Your task to perform on an android device: open wifi settings Image 0: 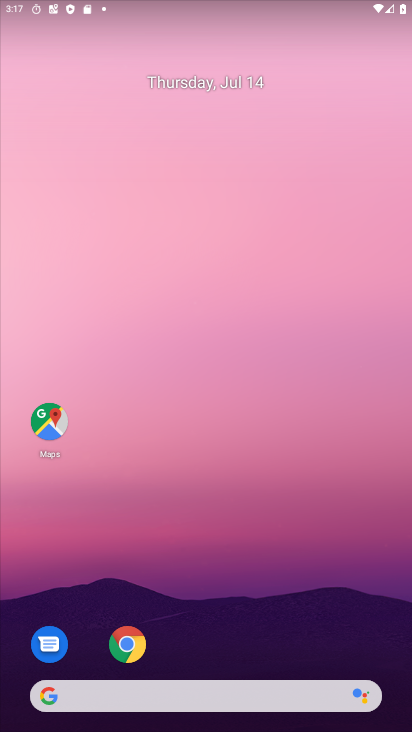
Step 0: drag from (29, 711) to (219, 194)
Your task to perform on an android device: open wifi settings Image 1: 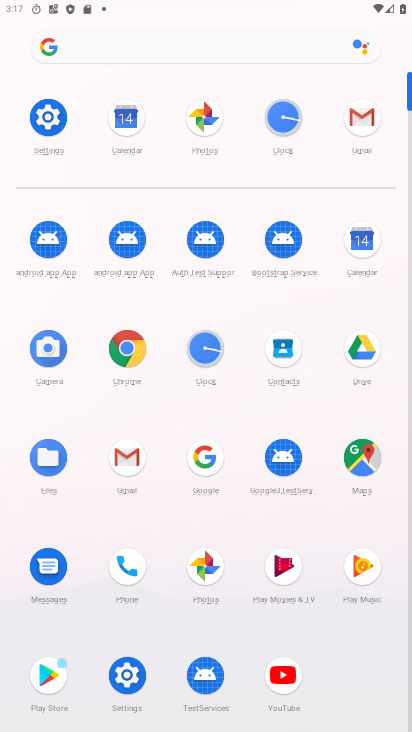
Step 1: click (126, 672)
Your task to perform on an android device: open wifi settings Image 2: 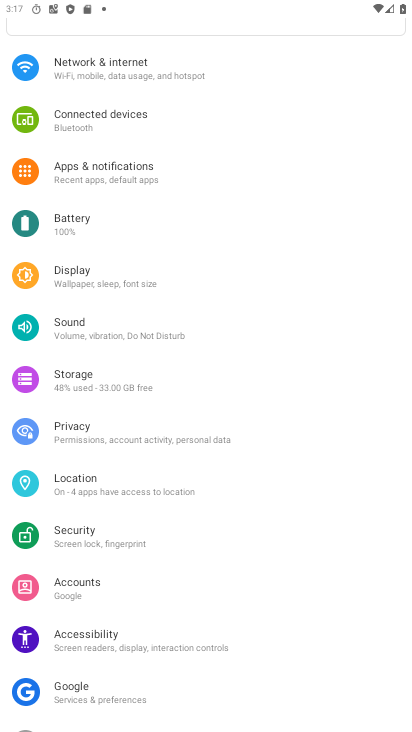
Step 2: click (119, 67)
Your task to perform on an android device: open wifi settings Image 3: 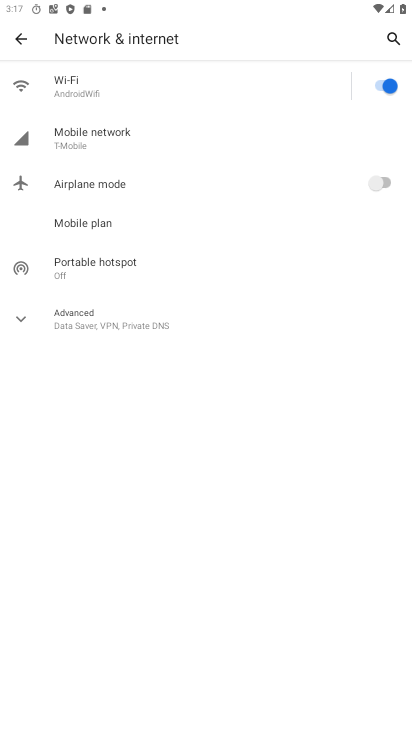
Step 3: task complete